Your task to perform on an android device: Go to CNN.com Image 0: 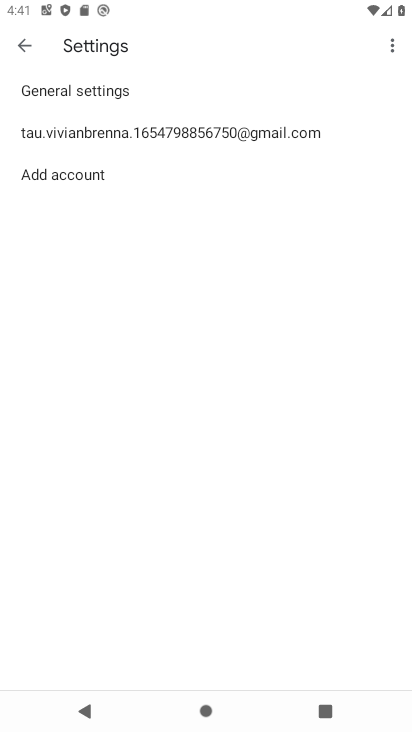
Step 0: press home button
Your task to perform on an android device: Go to CNN.com Image 1: 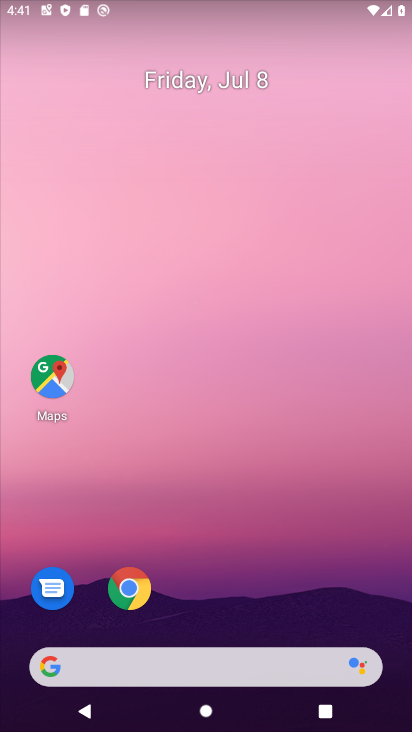
Step 1: click (146, 593)
Your task to perform on an android device: Go to CNN.com Image 2: 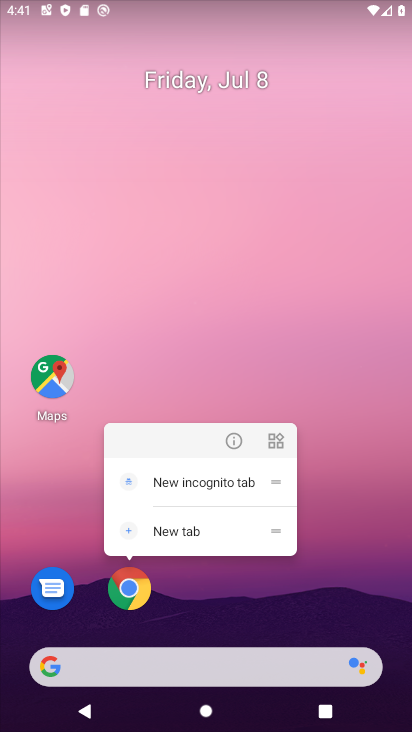
Step 2: click (118, 603)
Your task to perform on an android device: Go to CNN.com Image 3: 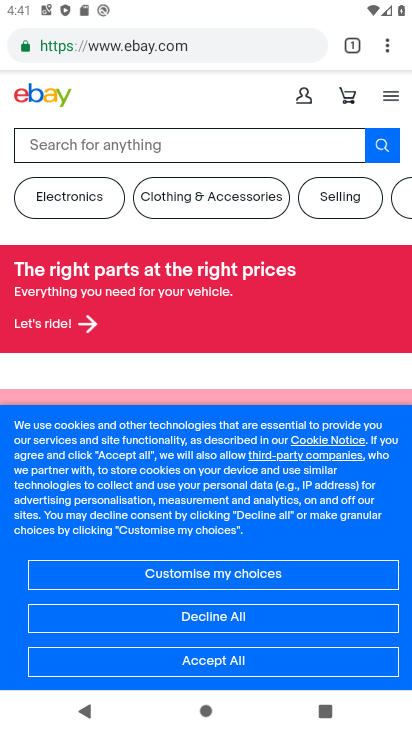
Step 3: click (203, 41)
Your task to perform on an android device: Go to CNN.com Image 4: 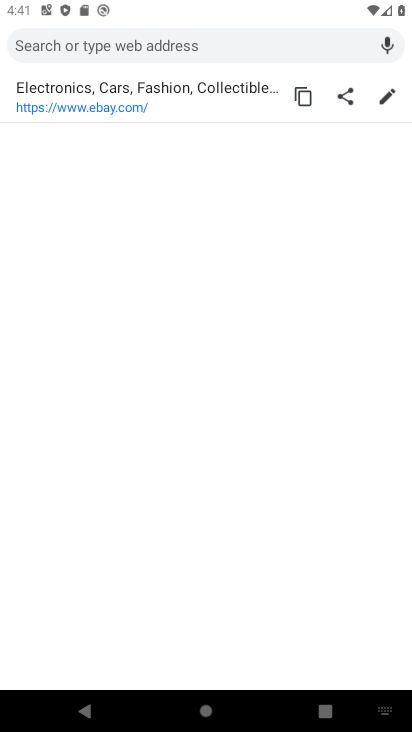
Step 4: type "CNN.com"
Your task to perform on an android device: Go to CNN.com Image 5: 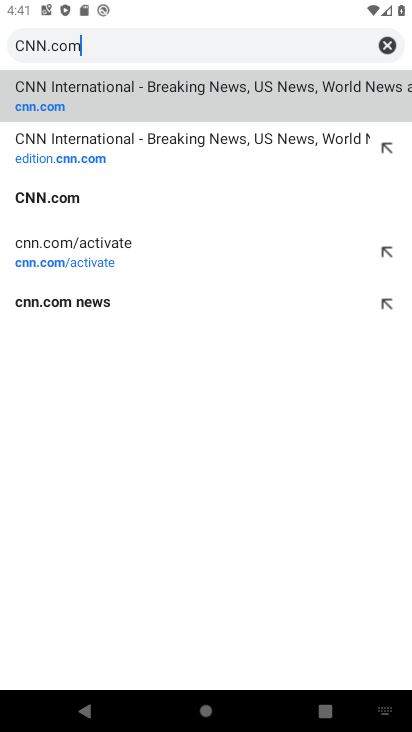
Step 5: click (247, 99)
Your task to perform on an android device: Go to CNN.com Image 6: 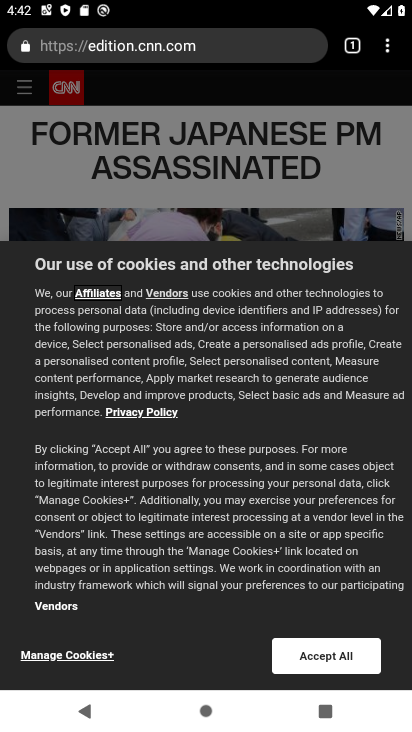
Step 6: task complete